Your task to perform on an android device: open app "Grab" (install if not already installed) and go to login screen Image 0: 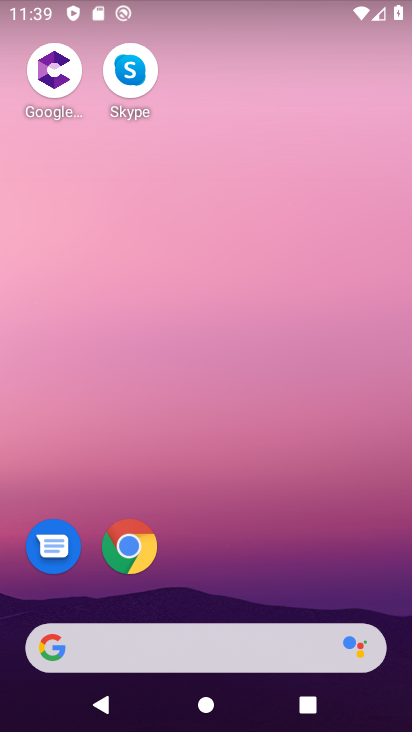
Step 0: drag from (244, 655) to (204, 1)
Your task to perform on an android device: open app "Grab" (install if not already installed) and go to login screen Image 1: 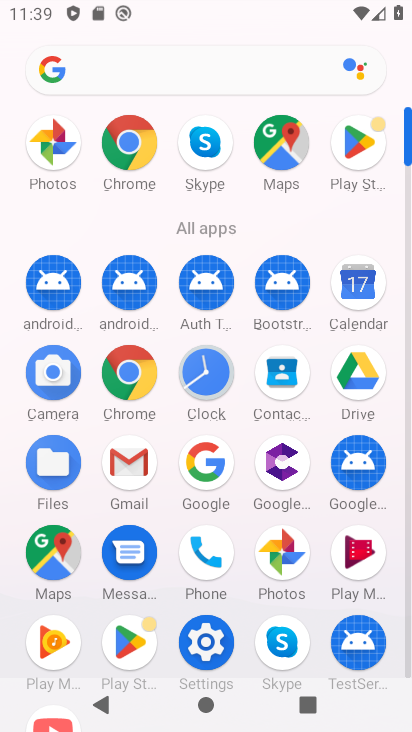
Step 1: click (367, 158)
Your task to perform on an android device: open app "Grab" (install if not already installed) and go to login screen Image 2: 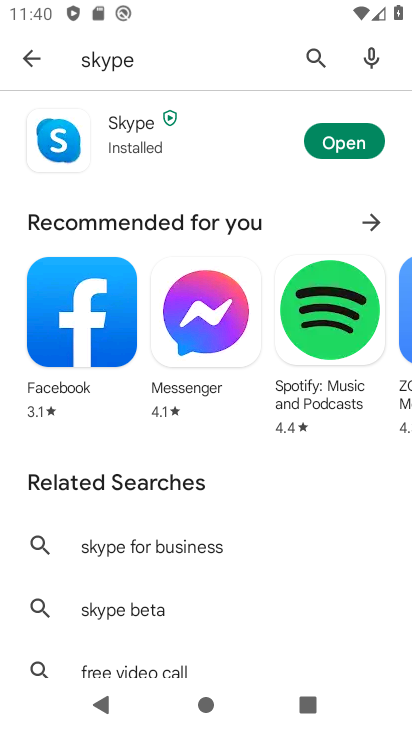
Step 2: click (322, 52)
Your task to perform on an android device: open app "Grab" (install if not already installed) and go to login screen Image 3: 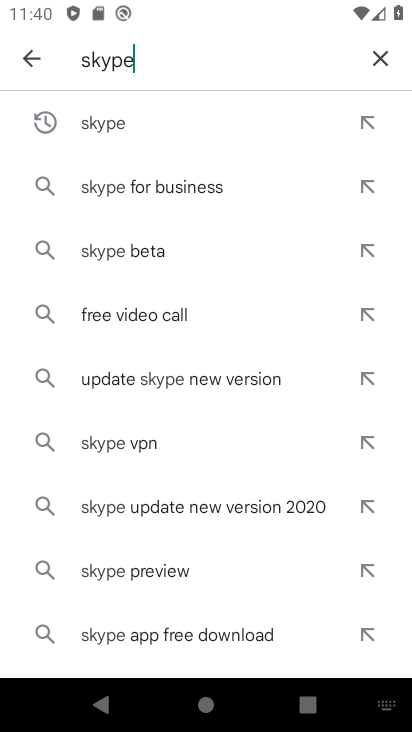
Step 3: click (377, 60)
Your task to perform on an android device: open app "Grab" (install if not already installed) and go to login screen Image 4: 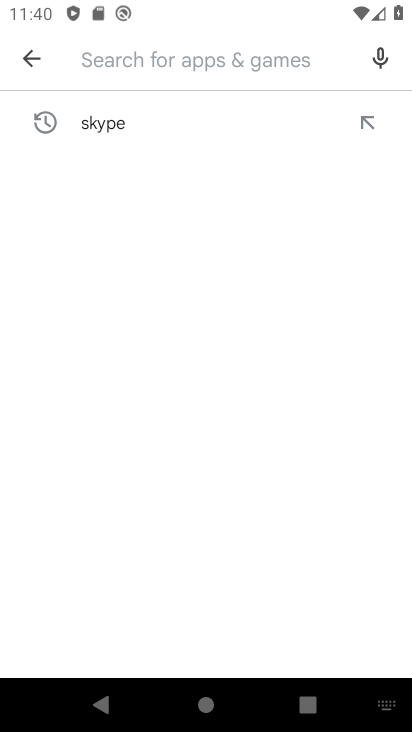
Step 4: type "grab"
Your task to perform on an android device: open app "Grab" (install if not already installed) and go to login screen Image 5: 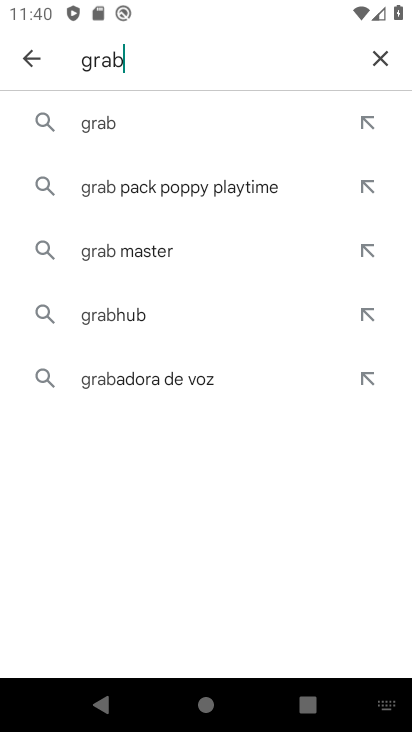
Step 5: click (103, 125)
Your task to perform on an android device: open app "Grab" (install if not already installed) and go to login screen Image 6: 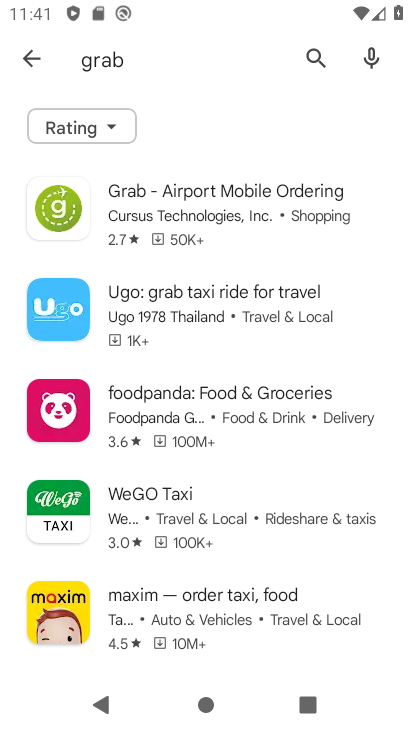
Step 6: click (183, 207)
Your task to perform on an android device: open app "Grab" (install if not already installed) and go to login screen Image 7: 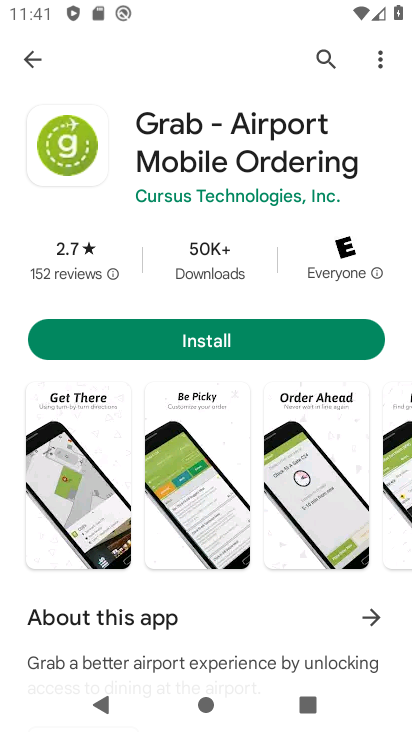
Step 7: click (216, 335)
Your task to perform on an android device: open app "Grab" (install if not already installed) and go to login screen Image 8: 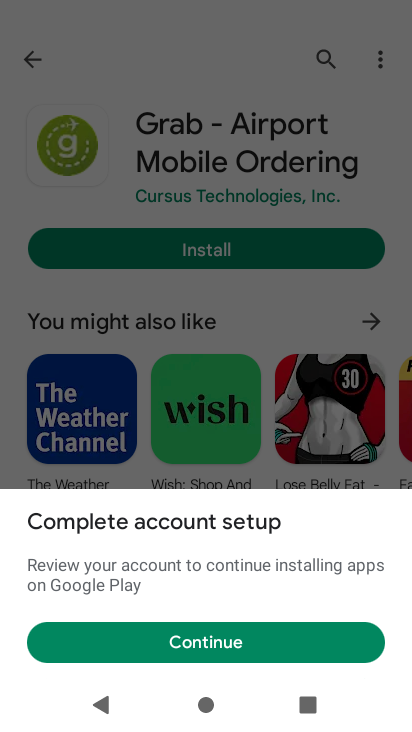
Step 8: click (181, 646)
Your task to perform on an android device: open app "Grab" (install if not already installed) and go to login screen Image 9: 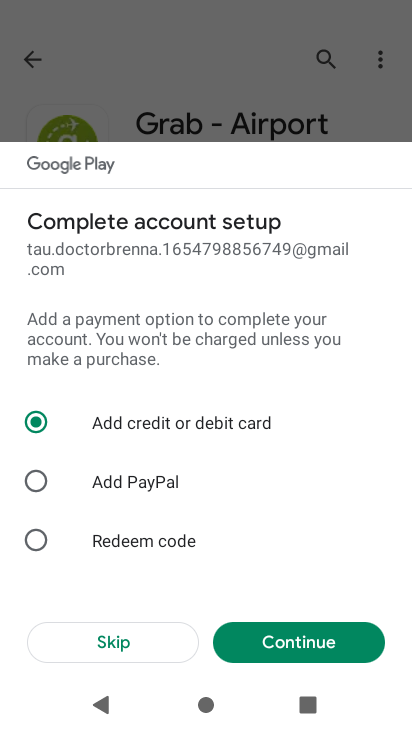
Step 9: click (181, 646)
Your task to perform on an android device: open app "Grab" (install if not already installed) and go to login screen Image 10: 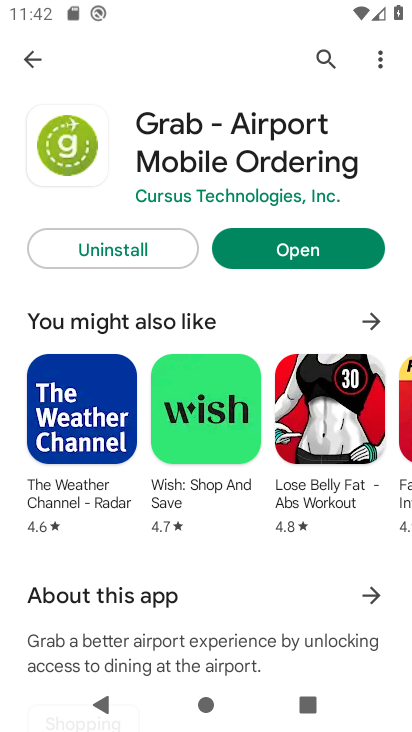
Step 10: click (303, 257)
Your task to perform on an android device: open app "Grab" (install if not already installed) and go to login screen Image 11: 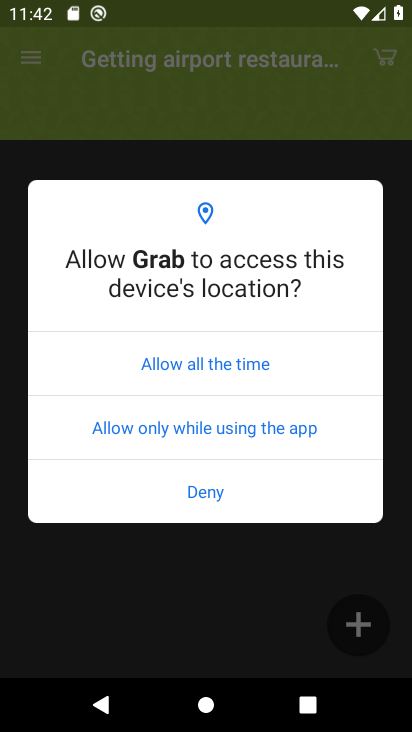
Step 11: click (189, 430)
Your task to perform on an android device: open app "Grab" (install if not already installed) and go to login screen Image 12: 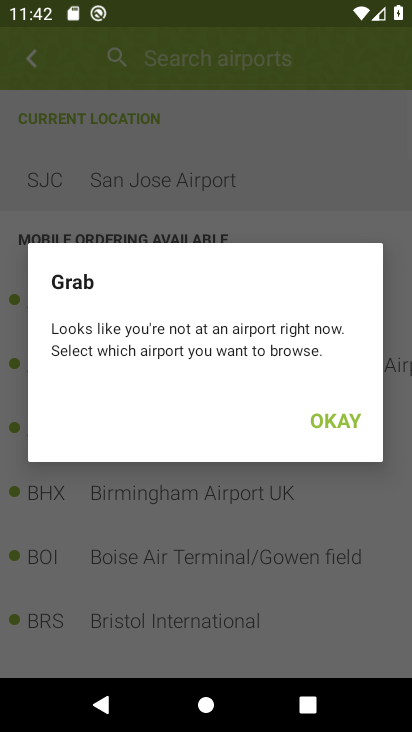
Step 12: click (319, 424)
Your task to perform on an android device: open app "Grab" (install if not already installed) and go to login screen Image 13: 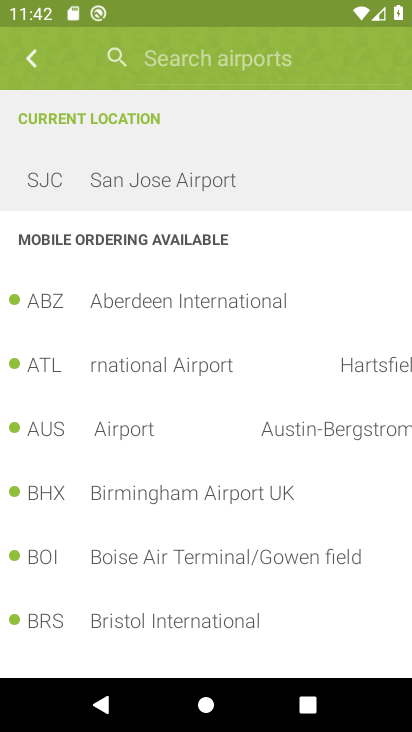
Step 13: task complete